Your task to perform on an android device: Open Android settings Image 0: 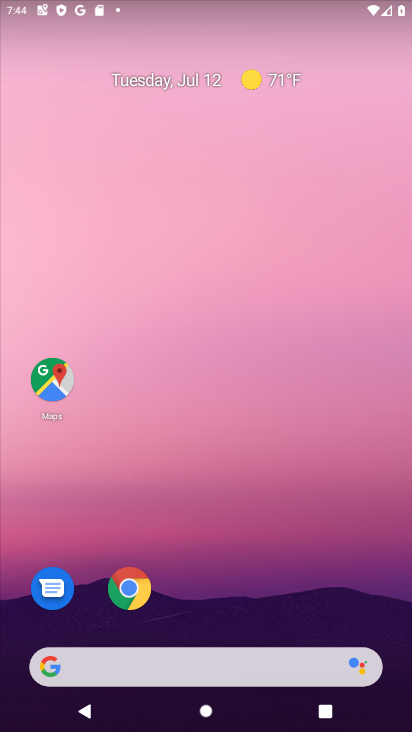
Step 0: drag from (33, 707) to (396, 42)
Your task to perform on an android device: Open Android settings Image 1: 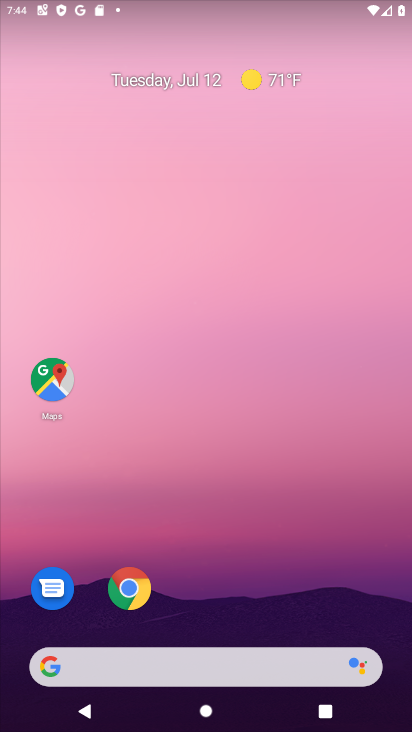
Step 1: drag from (34, 723) to (177, 161)
Your task to perform on an android device: Open Android settings Image 2: 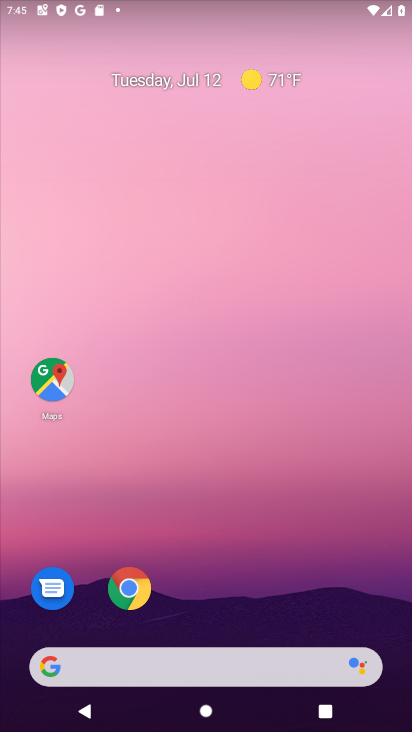
Step 2: drag from (38, 646) to (245, 0)
Your task to perform on an android device: Open Android settings Image 3: 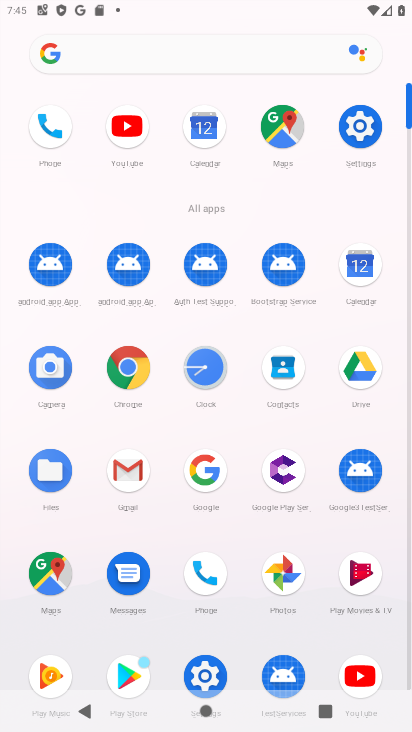
Step 3: click (204, 675)
Your task to perform on an android device: Open Android settings Image 4: 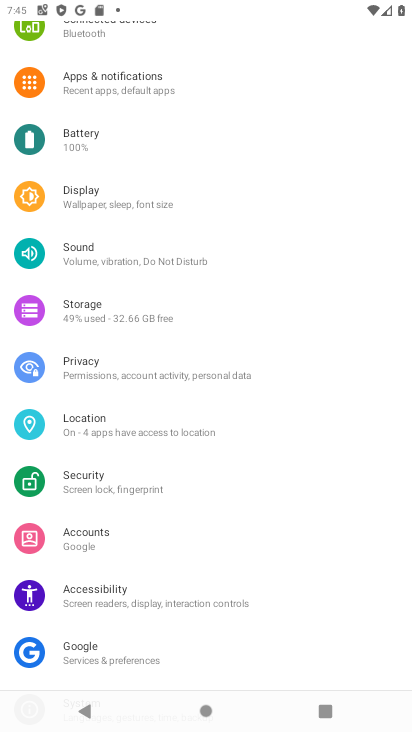
Step 4: drag from (147, 598) to (237, 177)
Your task to perform on an android device: Open Android settings Image 5: 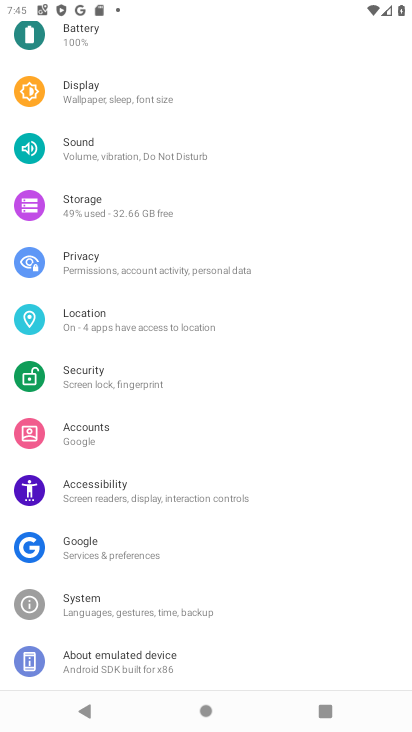
Step 5: click (142, 655)
Your task to perform on an android device: Open Android settings Image 6: 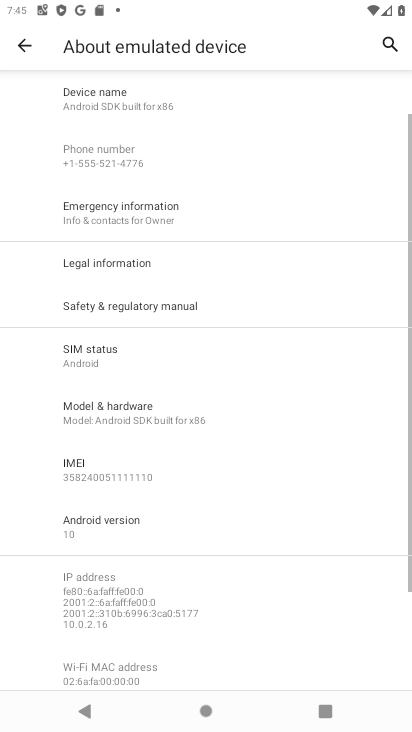
Step 6: click (109, 529)
Your task to perform on an android device: Open Android settings Image 7: 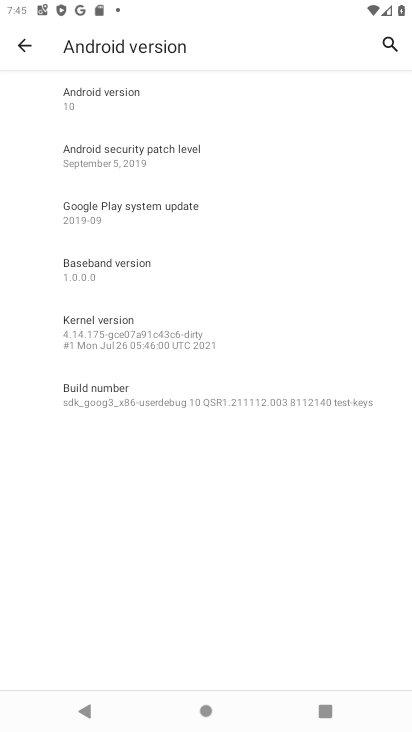
Step 7: task complete